Your task to perform on an android device: Open Youtube and go to the subscriptions tab Image 0: 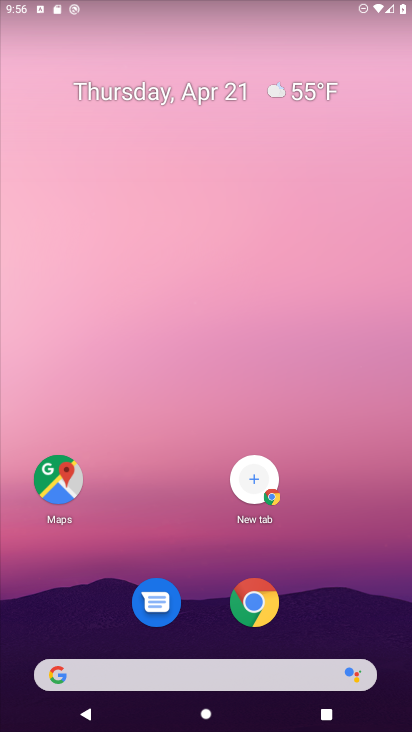
Step 0: drag from (201, 650) to (245, 93)
Your task to perform on an android device: Open Youtube and go to the subscriptions tab Image 1: 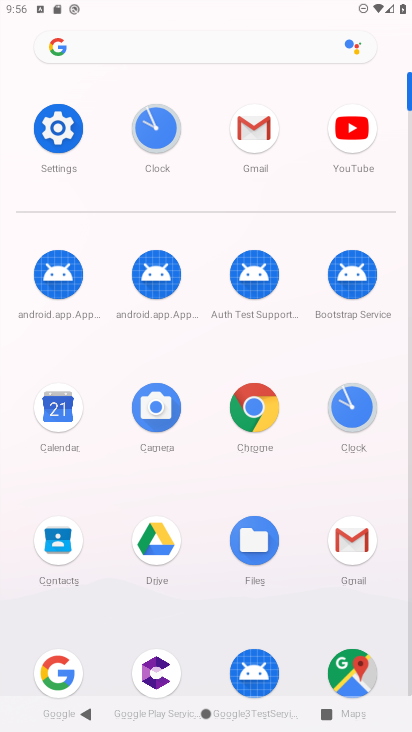
Step 1: click (362, 141)
Your task to perform on an android device: Open Youtube and go to the subscriptions tab Image 2: 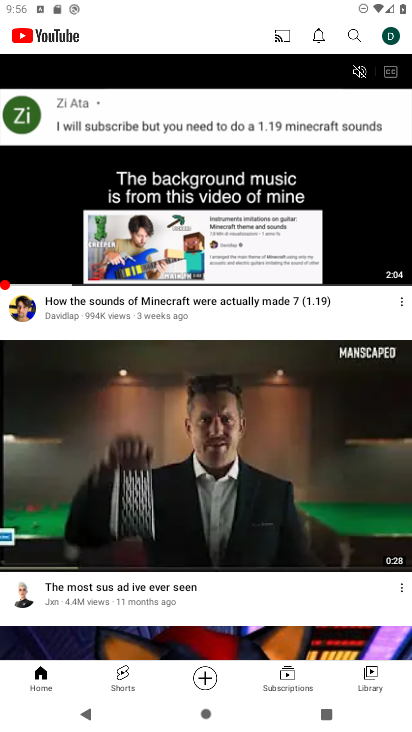
Step 2: click (300, 684)
Your task to perform on an android device: Open Youtube and go to the subscriptions tab Image 3: 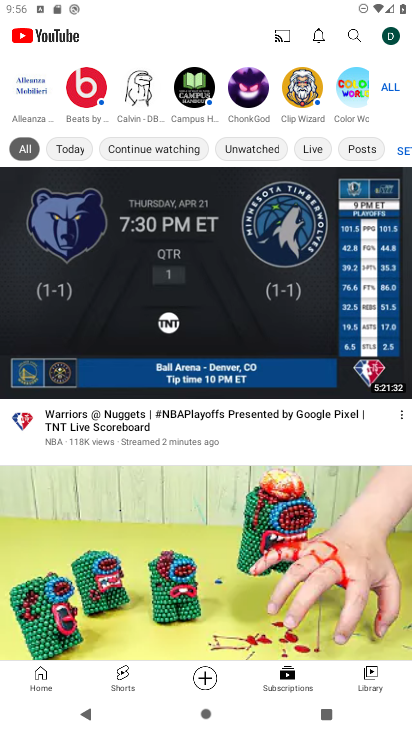
Step 3: task complete